Your task to perform on an android device: What is the news today? Image 0: 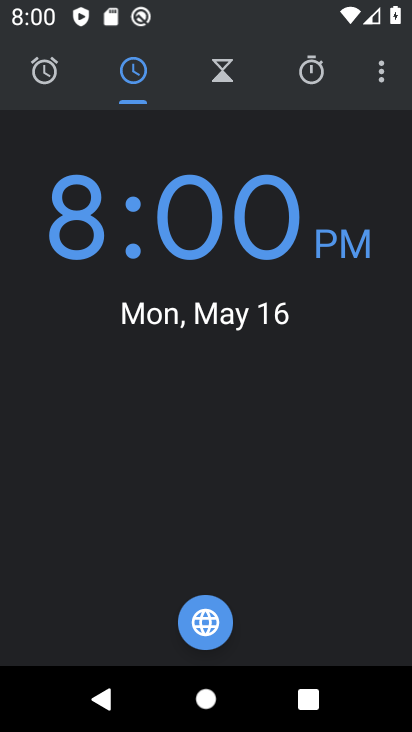
Step 0: press home button
Your task to perform on an android device: What is the news today? Image 1: 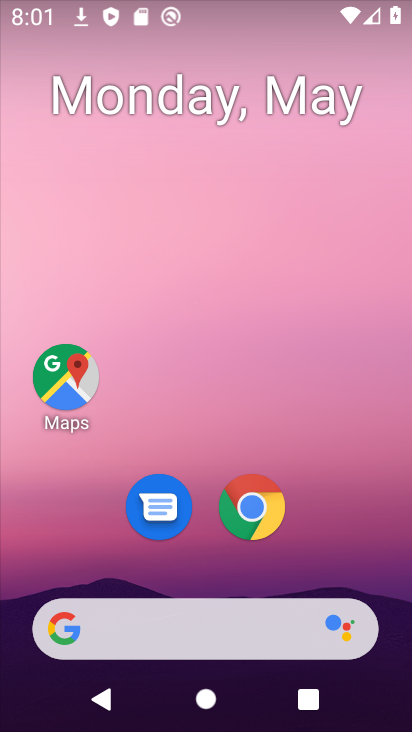
Step 1: drag from (221, 567) to (255, 0)
Your task to perform on an android device: What is the news today? Image 2: 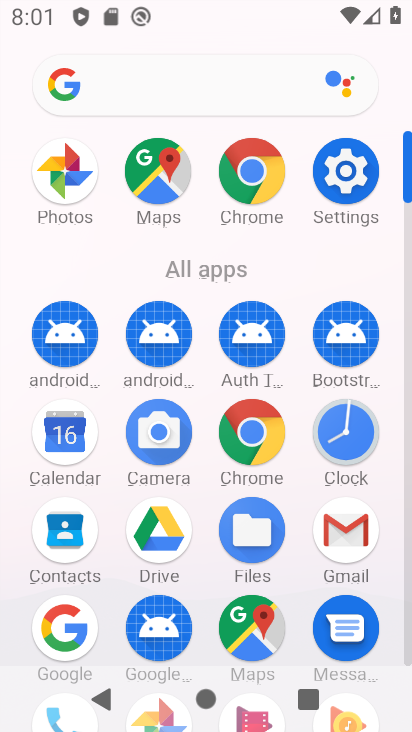
Step 2: click (204, 88)
Your task to perform on an android device: What is the news today? Image 3: 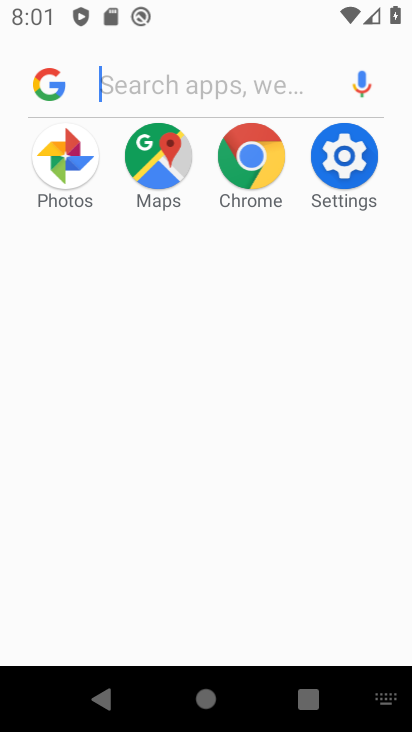
Step 3: type "news today?"
Your task to perform on an android device: What is the news today? Image 4: 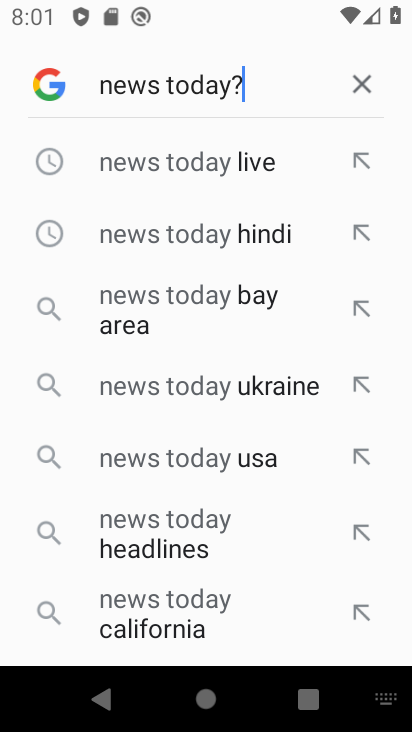
Step 4: click (152, 184)
Your task to perform on an android device: What is the news today? Image 5: 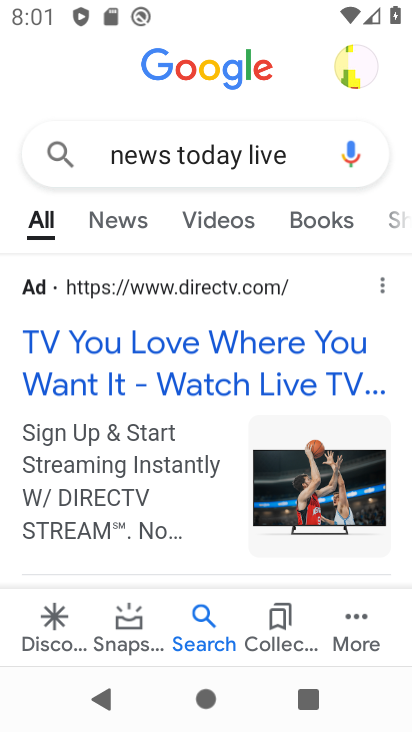
Step 5: task complete